Your task to perform on an android device: open the mobile data screen to see how much data has been used Image 0: 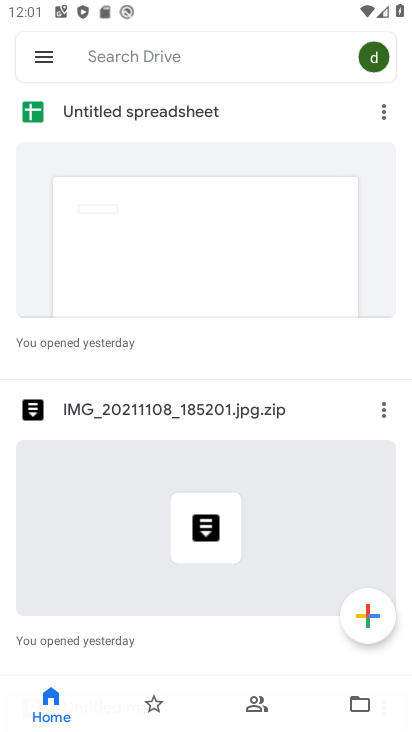
Step 0: press home button
Your task to perform on an android device: open the mobile data screen to see how much data has been used Image 1: 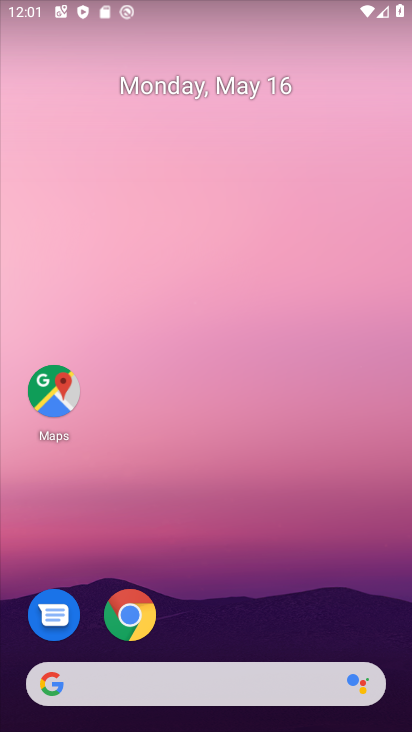
Step 1: drag from (317, 657) to (320, 25)
Your task to perform on an android device: open the mobile data screen to see how much data has been used Image 2: 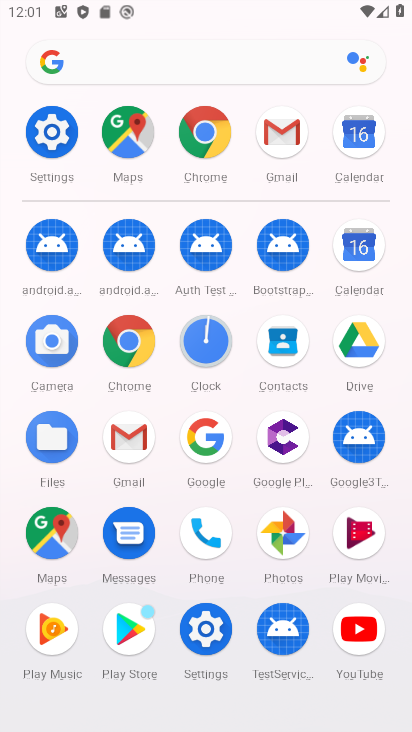
Step 2: click (41, 136)
Your task to perform on an android device: open the mobile data screen to see how much data has been used Image 3: 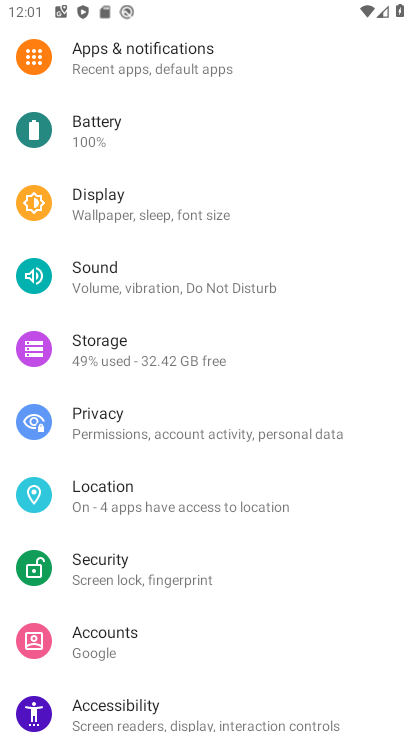
Step 3: drag from (239, 194) to (212, 605)
Your task to perform on an android device: open the mobile data screen to see how much data has been used Image 4: 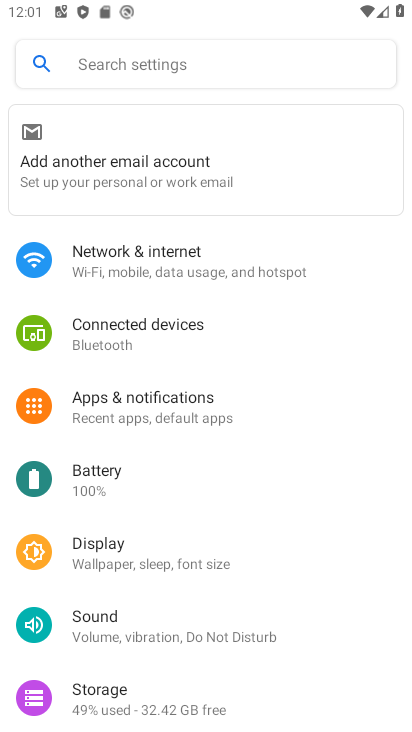
Step 4: click (193, 280)
Your task to perform on an android device: open the mobile data screen to see how much data has been used Image 5: 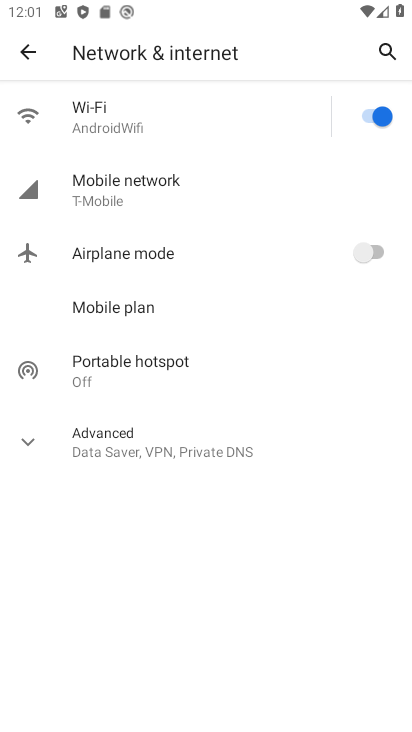
Step 5: click (146, 189)
Your task to perform on an android device: open the mobile data screen to see how much data has been used Image 6: 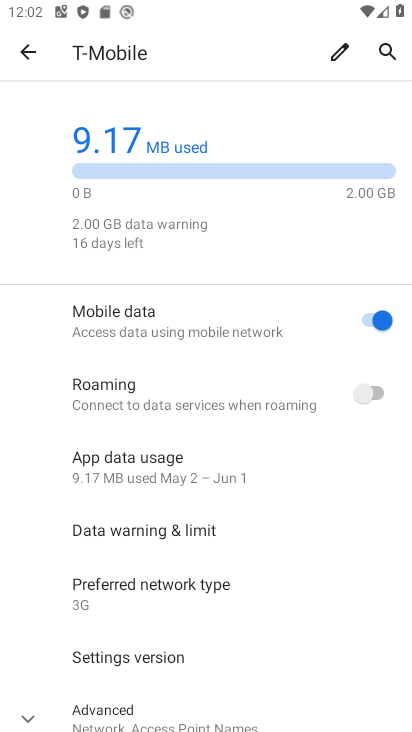
Step 6: task complete